Your task to perform on an android device: Open Android settings Image 0: 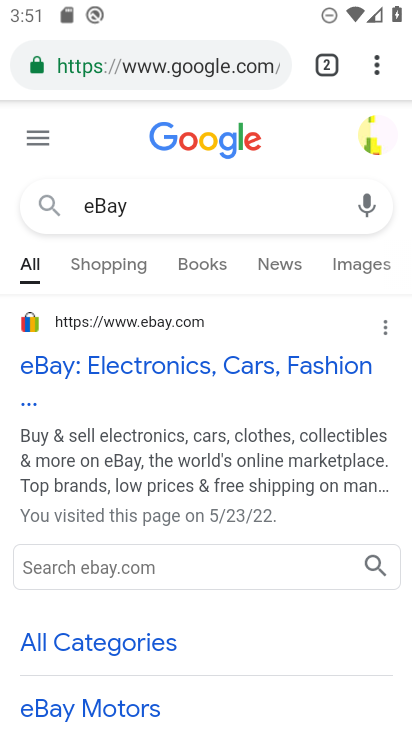
Step 0: task complete